Your task to perform on an android device: Go to Google maps Image 0: 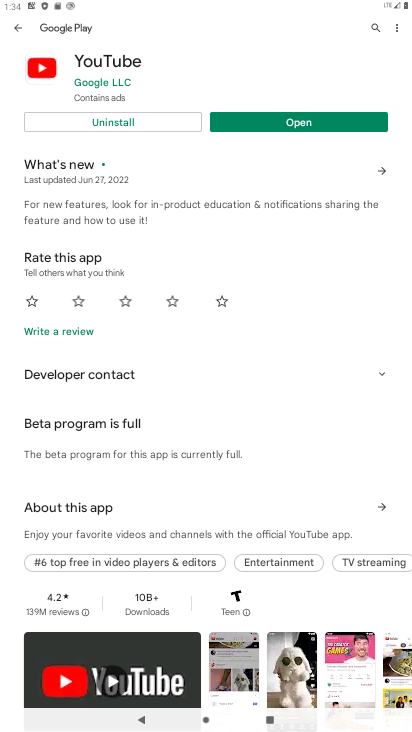
Step 0: press home button
Your task to perform on an android device: Go to Google maps Image 1: 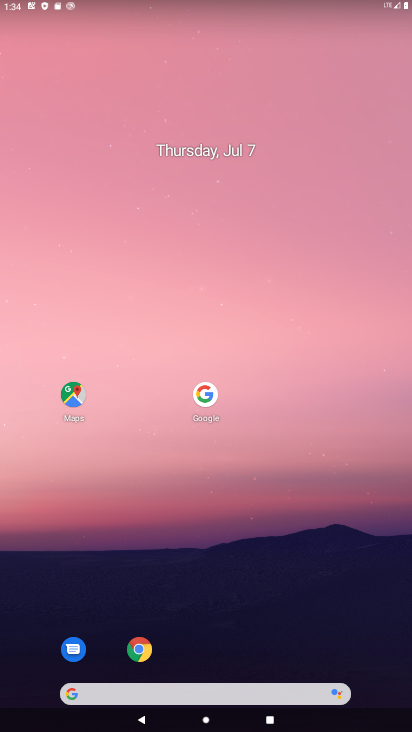
Step 1: click (81, 389)
Your task to perform on an android device: Go to Google maps Image 2: 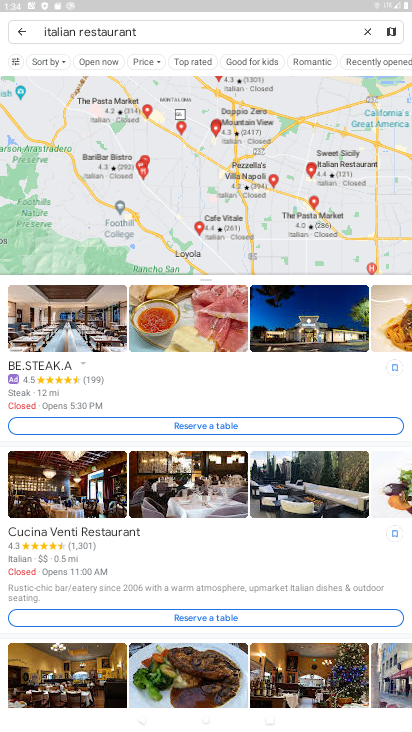
Step 2: click (22, 28)
Your task to perform on an android device: Go to Google maps Image 3: 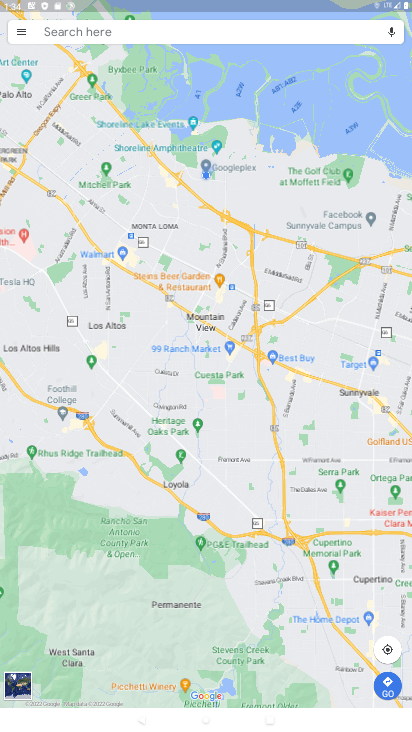
Step 3: task complete